Your task to perform on an android device: open chrome and create a bookmark for the current page Image 0: 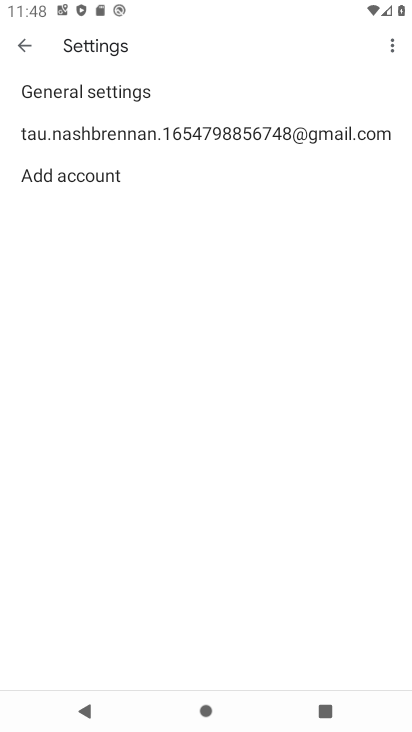
Step 0: press back button
Your task to perform on an android device: open chrome and create a bookmark for the current page Image 1: 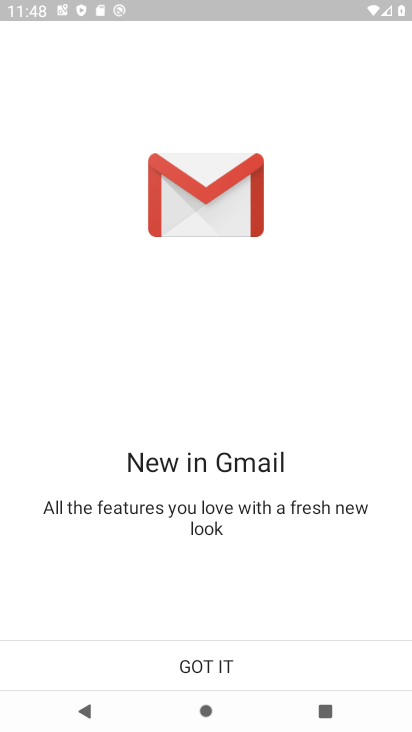
Step 1: press home button
Your task to perform on an android device: open chrome and create a bookmark for the current page Image 2: 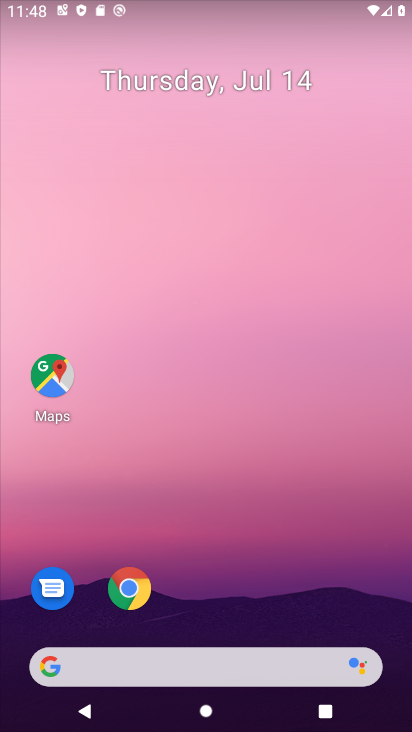
Step 2: click (136, 585)
Your task to perform on an android device: open chrome and create a bookmark for the current page Image 3: 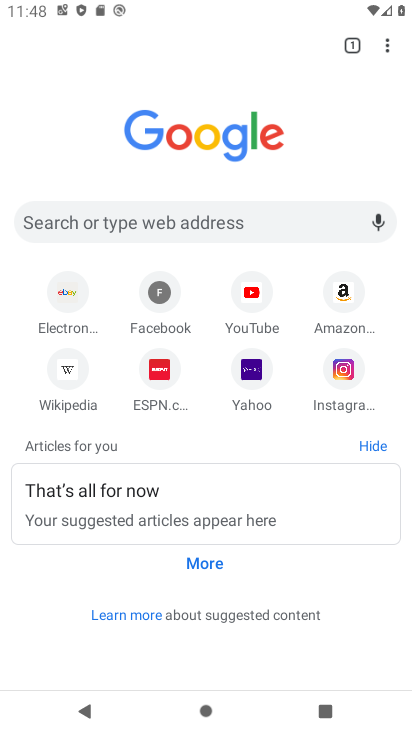
Step 3: task complete